Your task to perform on an android device: toggle notification dots Image 0: 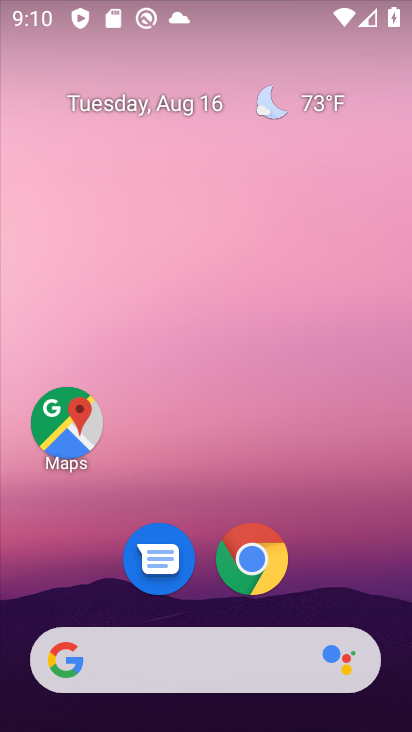
Step 0: drag from (349, 570) to (338, 31)
Your task to perform on an android device: toggle notification dots Image 1: 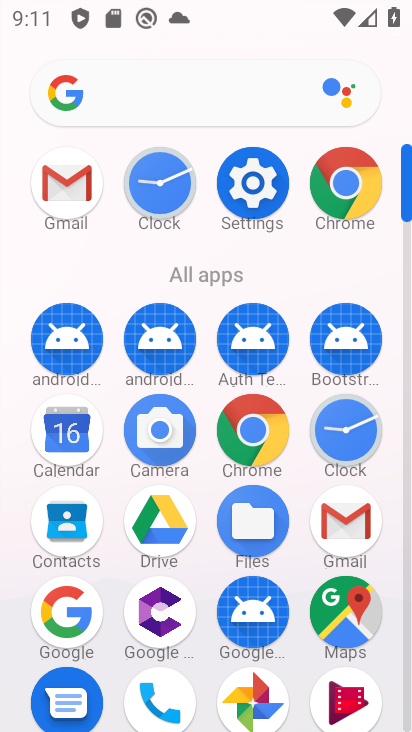
Step 1: click (238, 194)
Your task to perform on an android device: toggle notification dots Image 2: 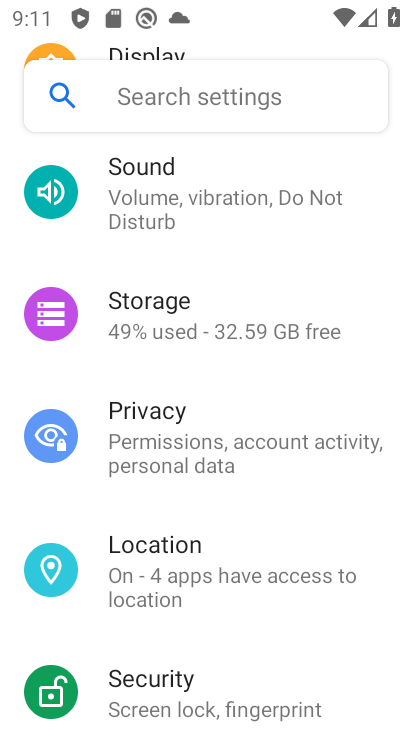
Step 2: drag from (294, 615) to (227, 723)
Your task to perform on an android device: toggle notification dots Image 3: 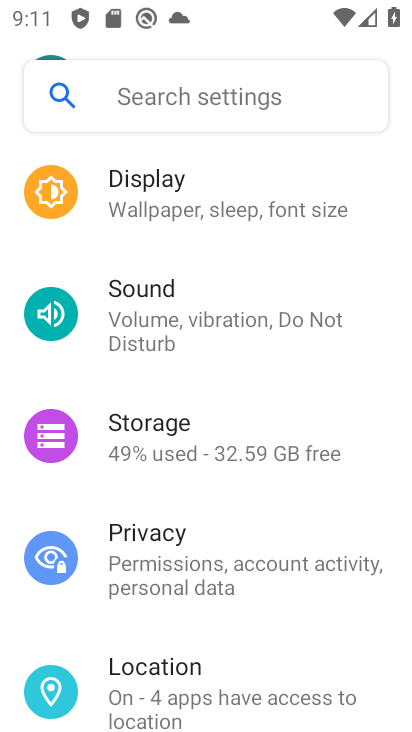
Step 3: drag from (203, 269) to (178, 496)
Your task to perform on an android device: toggle notification dots Image 4: 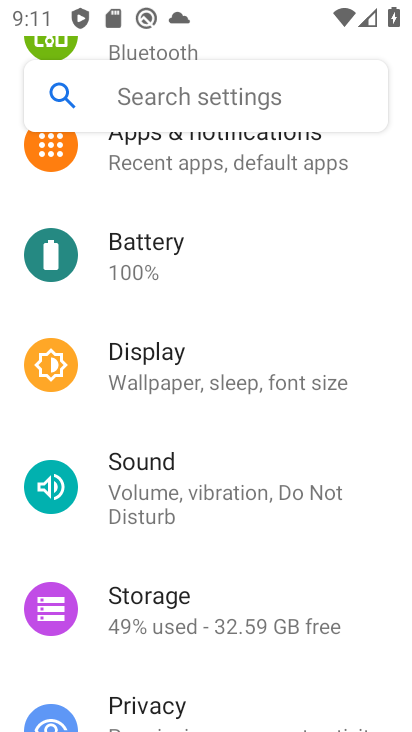
Step 4: click (195, 143)
Your task to perform on an android device: toggle notification dots Image 5: 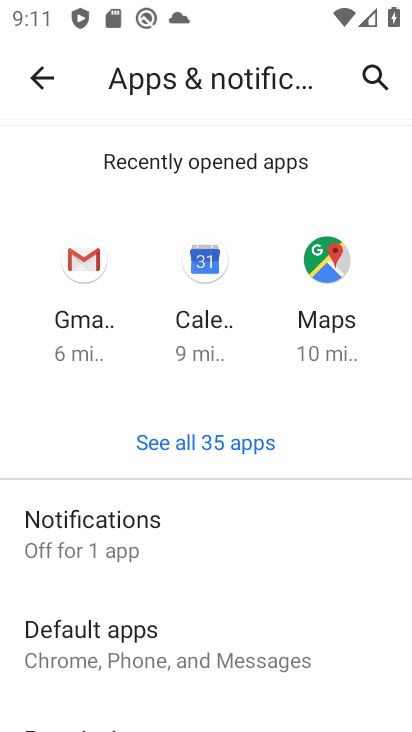
Step 5: task complete